Your task to perform on an android device: change the clock display to show seconds Image 0: 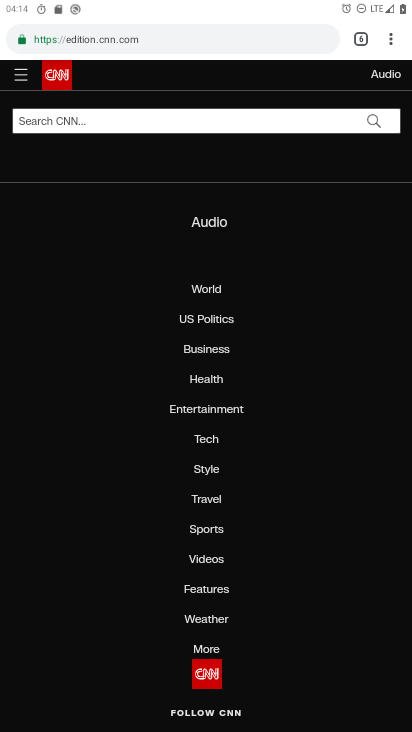
Step 0: press home button
Your task to perform on an android device: change the clock display to show seconds Image 1: 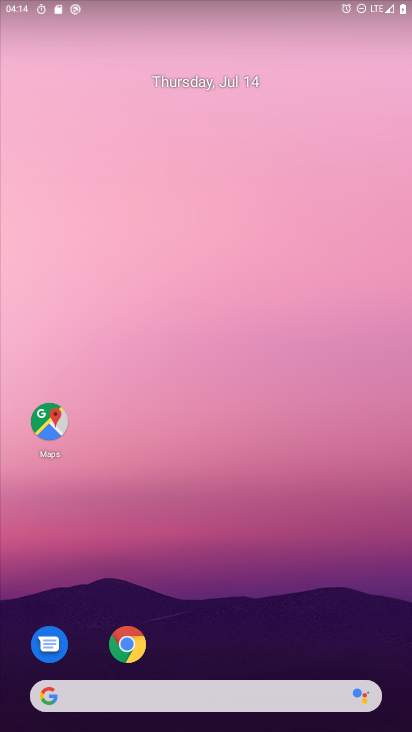
Step 1: drag from (207, 296) to (209, 15)
Your task to perform on an android device: change the clock display to show seconds Image 2: 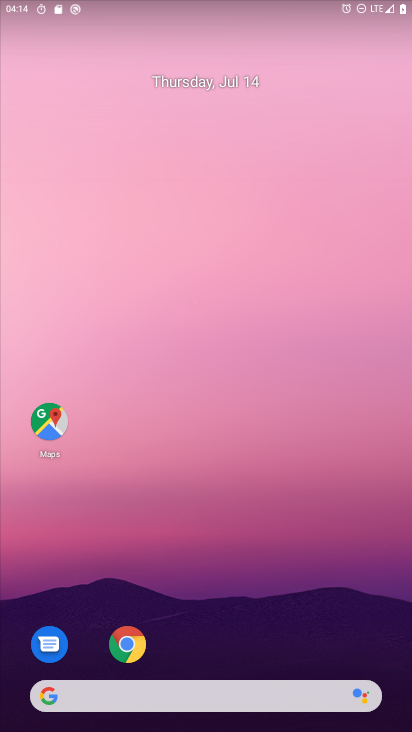
Step 2: drag from (285, 598) to (254, 45)
Your task to perform on an android device: change the clock display to show seconds Image 3: 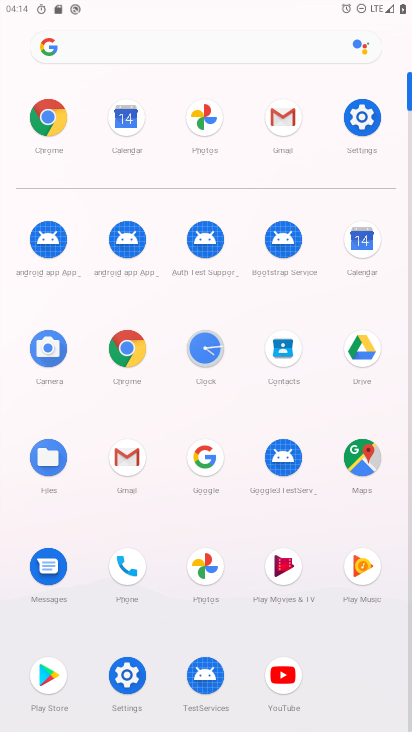
Step 3: click (202, 351)
Your task to perform on an android device: change the clock display to show seconds Image 4: 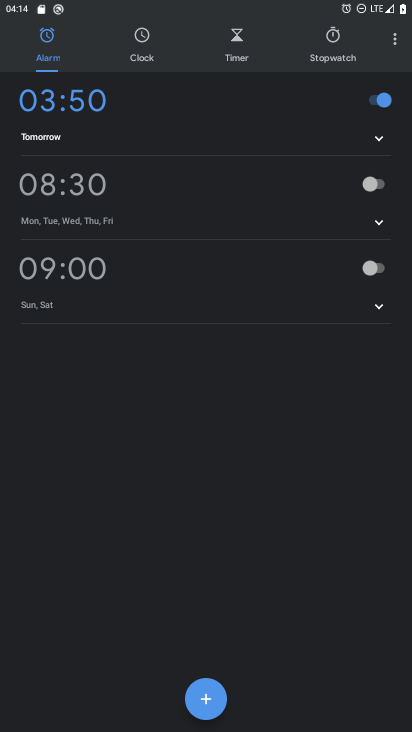
Step 4: click (394, 41)
Your task to perform on an android device: change the clock display to show seconds Image 5: 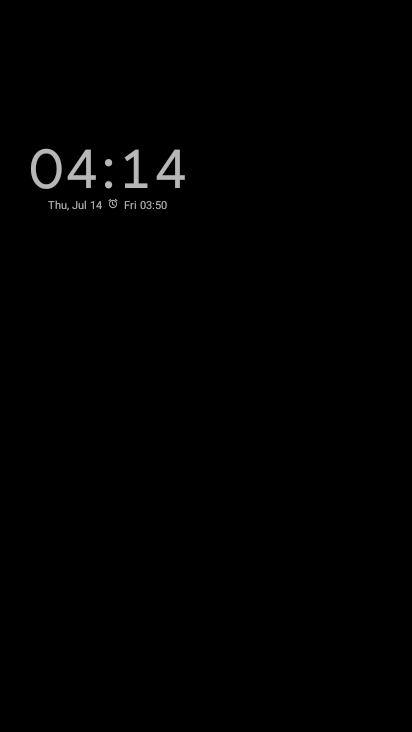
Step 5: press back button
Your task to perform on an android device: change the clock display to show seconds Image 6: 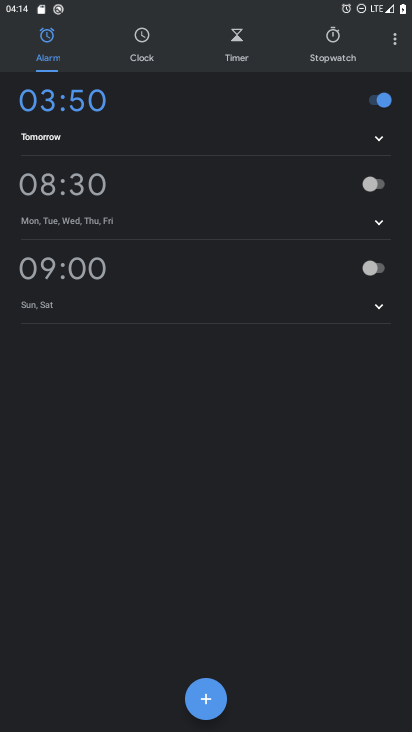
Step 6: click (393, 37)
Your task to perform on an android device: change the clock display to show seconds Image 7: 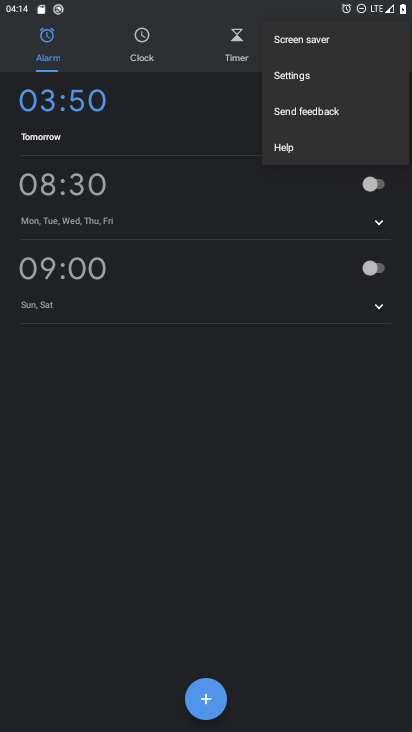
Step 7: click (294, 83)
Your task to perform on an android device: change the clock display to show seconds Image 8: 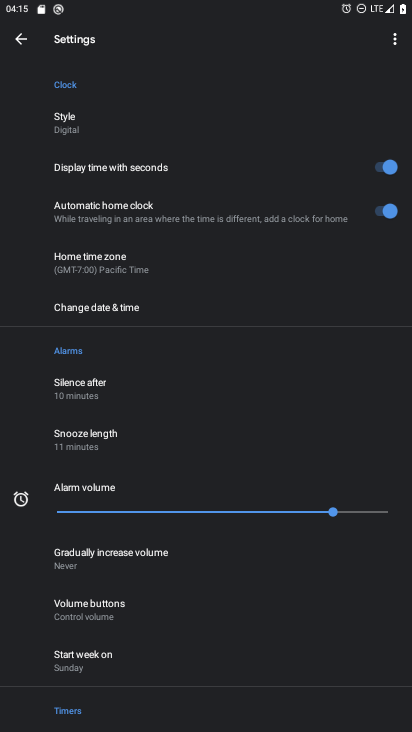
Step 8: task complete